Your task to perform on an android device: toggle improve location accuracy Image 0: 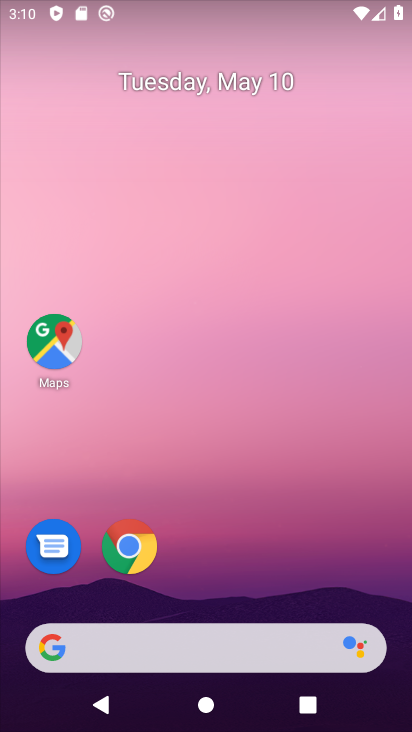
Step 0: drag from (249, 598) to (306, 19)
Your task to perform on an android device: toggle improve location accuracy Image 1: 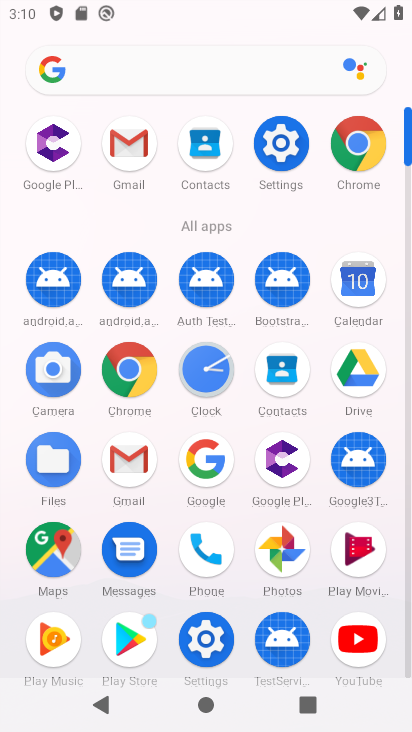
Step 1: click (277, 176)
Your task to perform on an android device: toggle improve location accuracy Image 2: 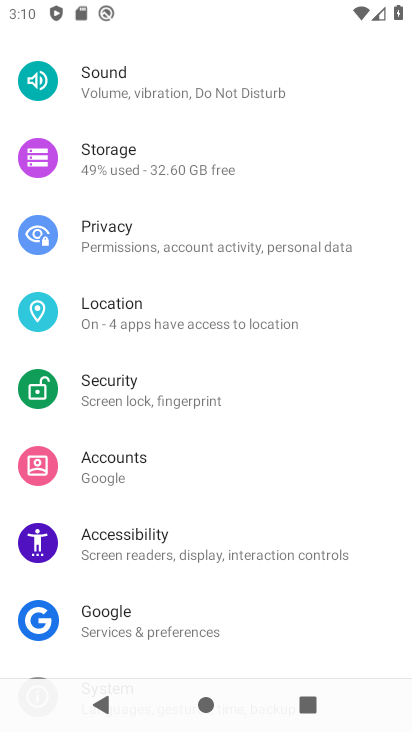
Step 2: click (191, 321)
Your task to perform on an android device: toggle improve location accuracy Image 3: 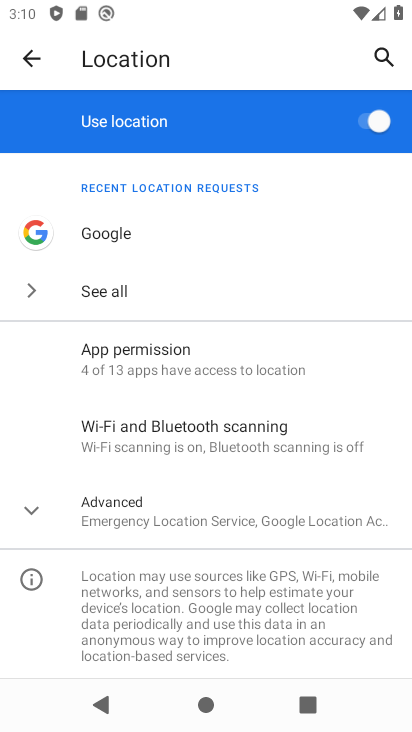
Step 3: click (186, 517)
Your task to perform on an android device: toggle improve location accuracy Image 4: 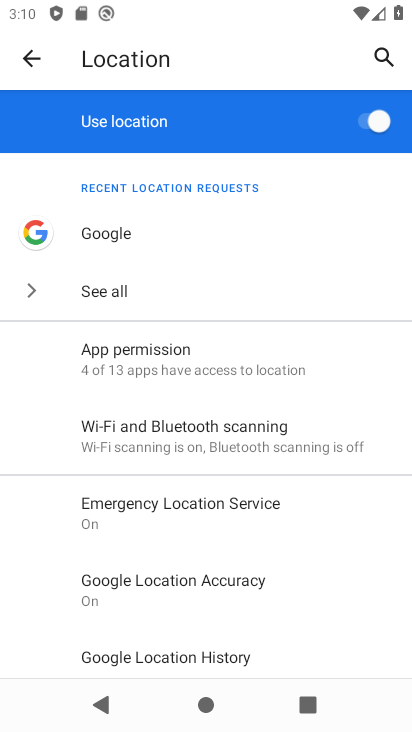
Step 4: click (182, 602)
Your task to perform on an android device: toggle improve location accuracy Image 5: 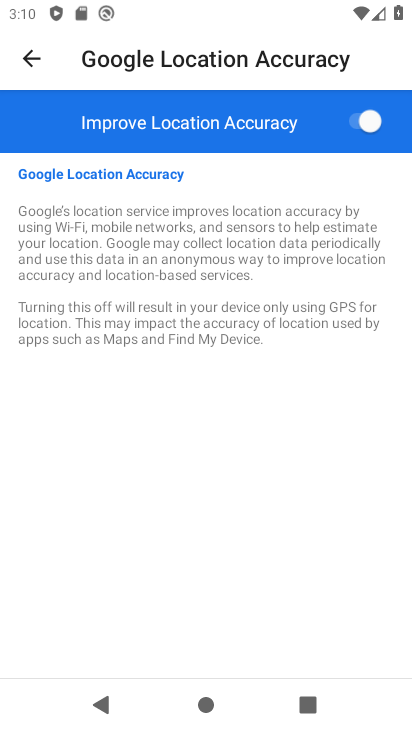
Step 5: click (367, 134)
Your task to perform on an android device: toggle improve location accuracy Image 6: 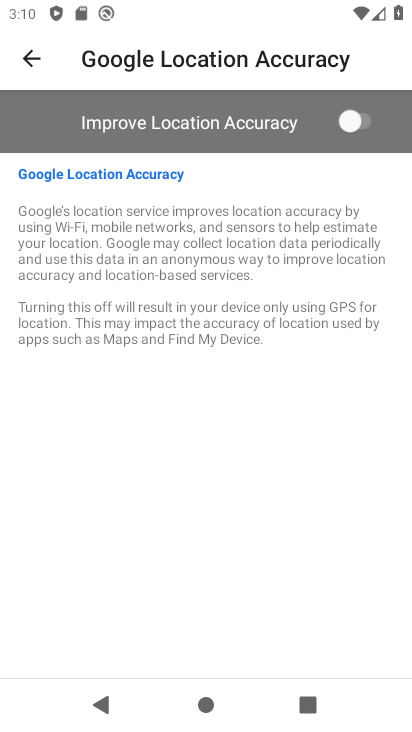
Step 6: task complete